Your task to perform on an android device: Show me the alarms in the clock app Image 0: 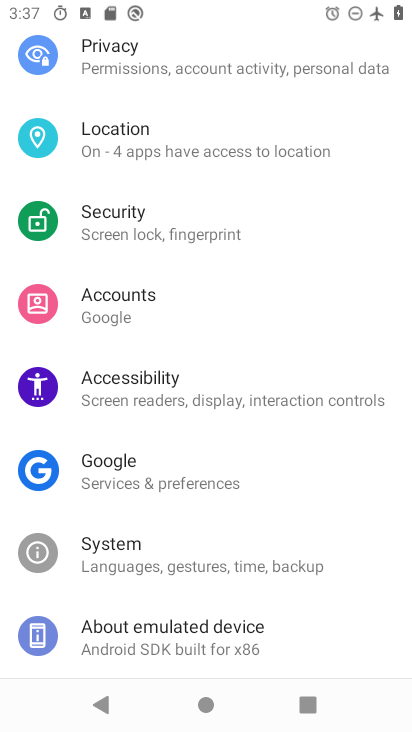
Step 0: press home button
Your task to perform on an android device: Show me the alarms in the clock app Image 1: 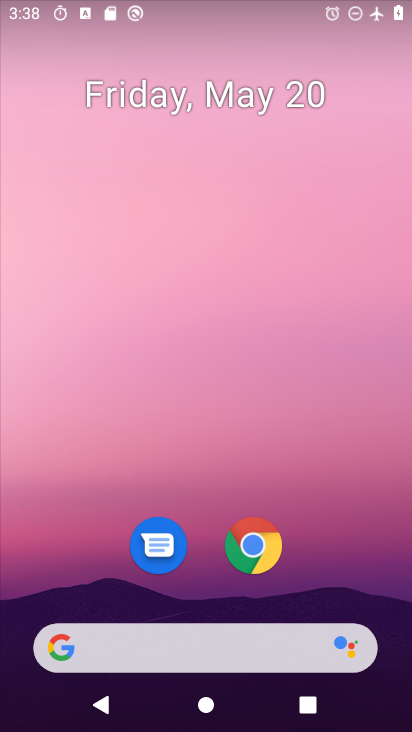
Step 1: drag from (259, 610) to (250, 1)
Your task to perform on an android device: Show me the alarms in the clock app Image 2: 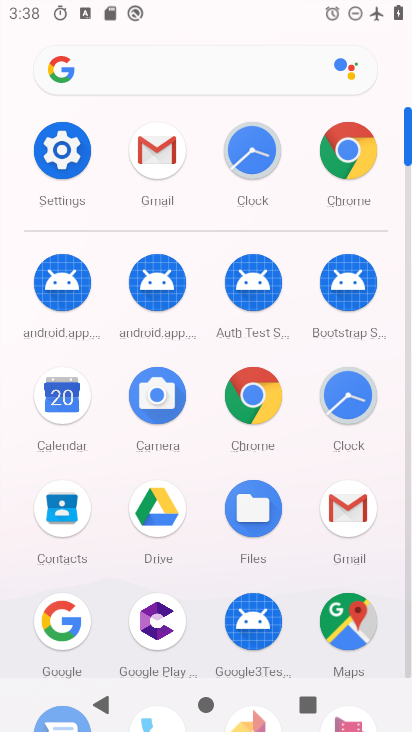
Step 2: click (344, 395)
Your task to perform on an android device: Show me the alarms in the clock app Image 3: 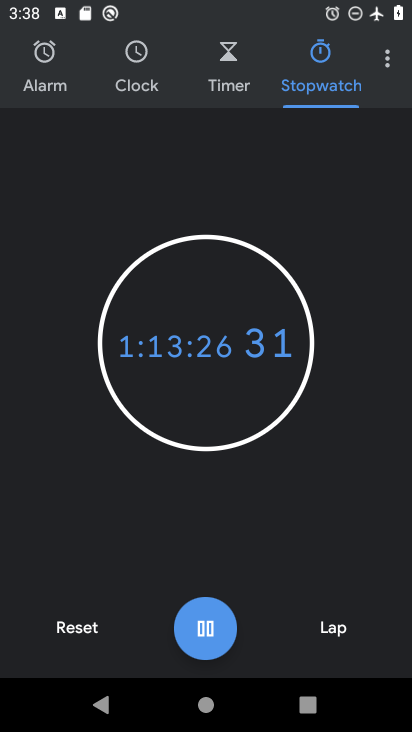
Step 3: click (45, 75)
Your task to perform on an android device: Show me the alarms in the clock app Image 4: 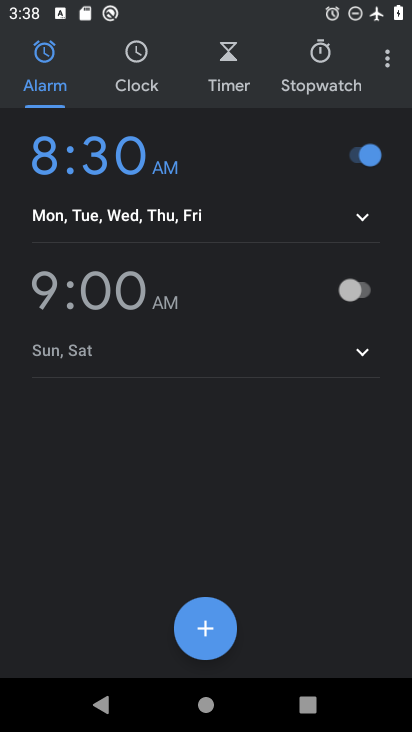
Step 4: task complete